Your task to perform on an android device: uninstall "Microsoft Authenticator" Image 0: 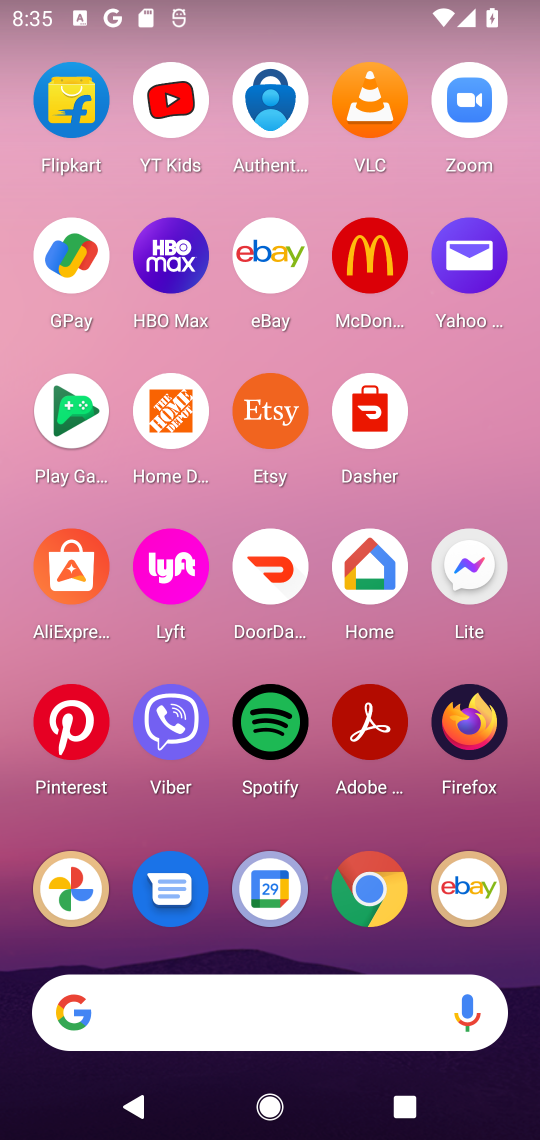
Step 0: press home button
Your task to perform on an android device: uninstall "Microsoft Authenticator" Image 1: 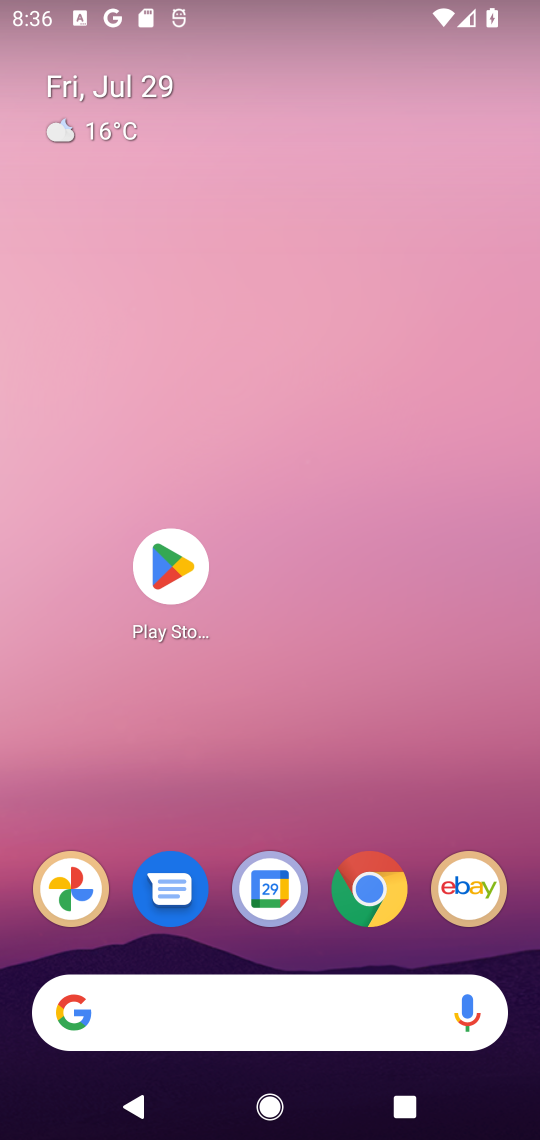
Step 1: click (172, 551)
Your task to perform on an android device: uninstall "Microsoft Authenticator" Image 2: 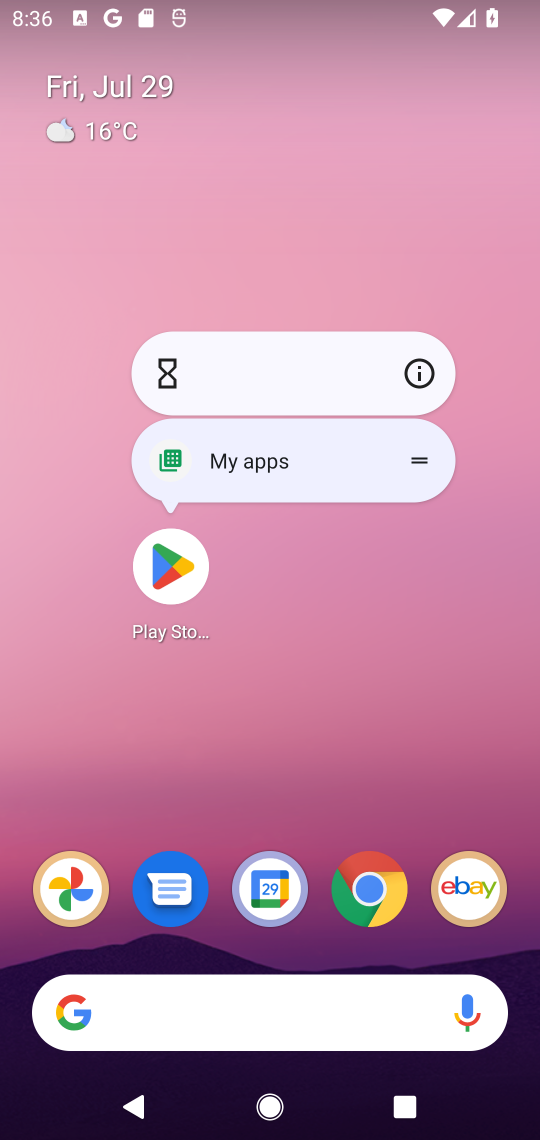
Step 2: click (163, 561)
Your task to perform on an android device: uninstall "Microsoft Authenticator" Image 3: 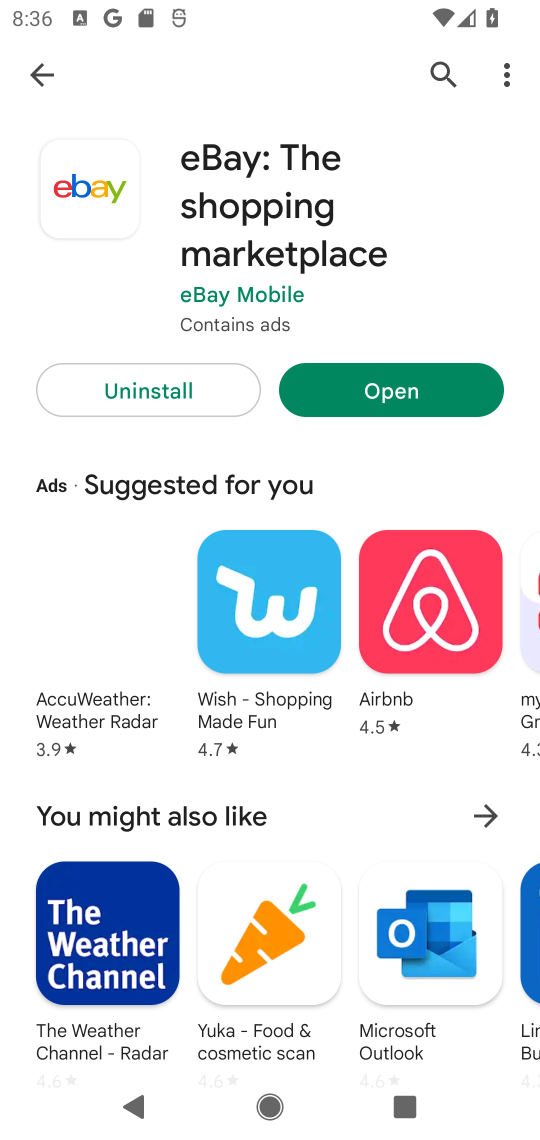
Step 3: click (440, 67)
Your task to perform on an android device: uninstall "Microsoft Authenticator" Image 4: 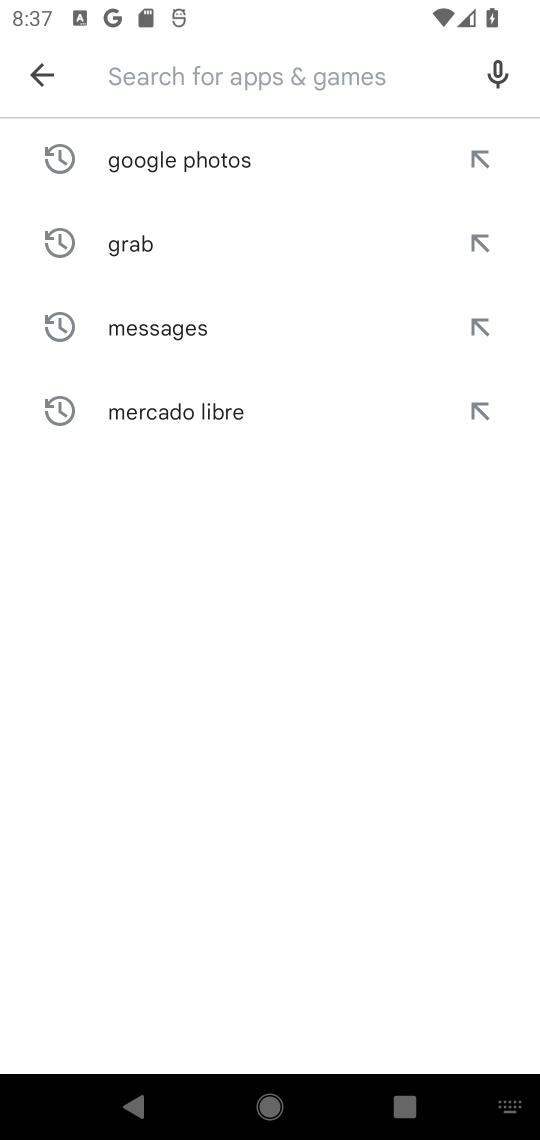
Step 4: type "Microsoft Authenticator"
Your task to perform on an android device: uninstall "Microsoft Authenticator" Image 5: 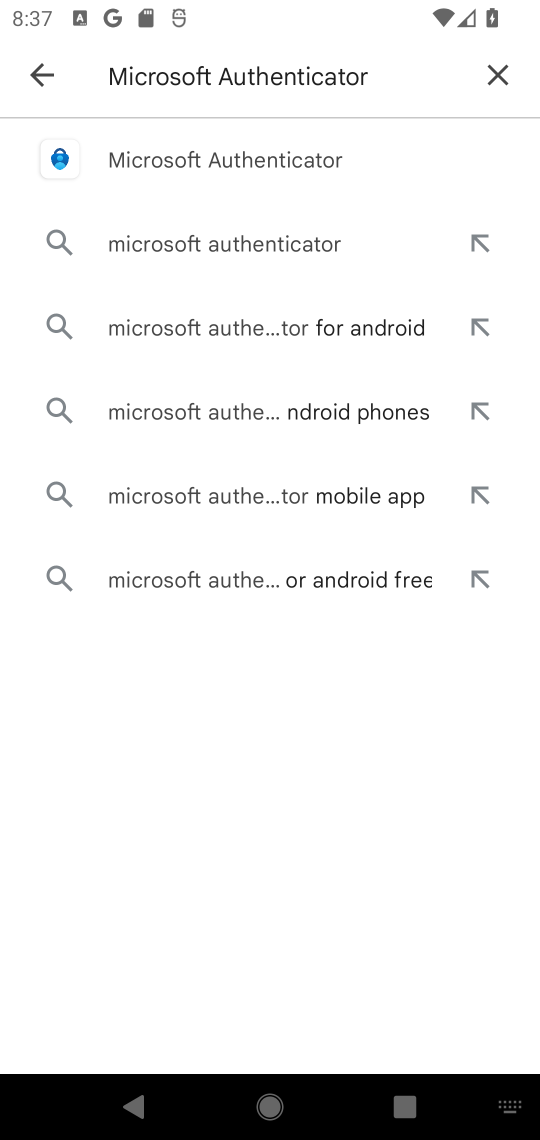
Step 5: click (187, 170)
Your task to perform on an android device: uninstall "Microsoft Authenticator" Image 6: 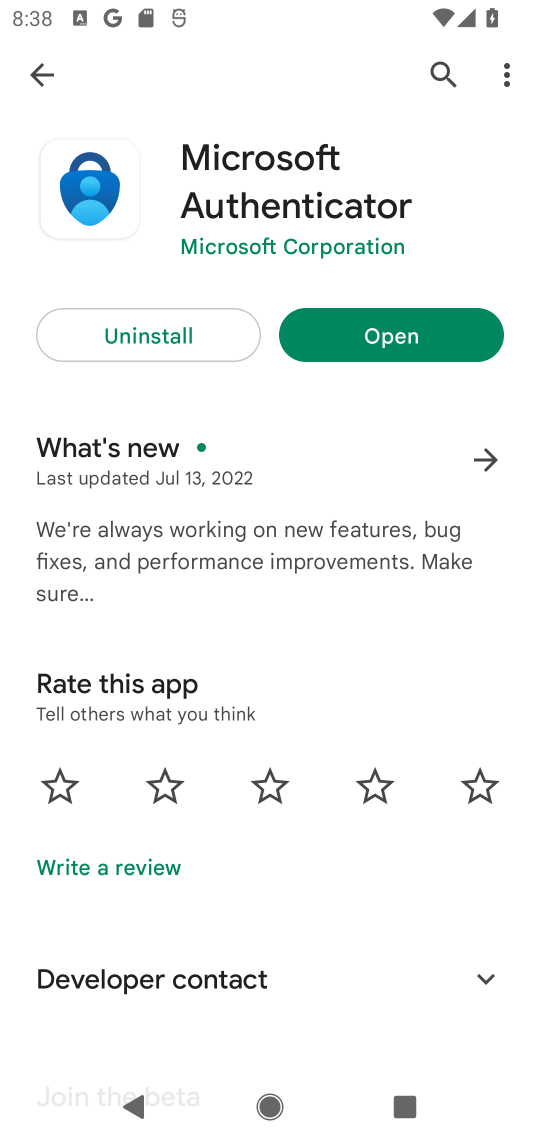
Step 6: click (152, 331)
Your task to perform on an android device: uninstall "Microsoft Authenticator" Image 7: 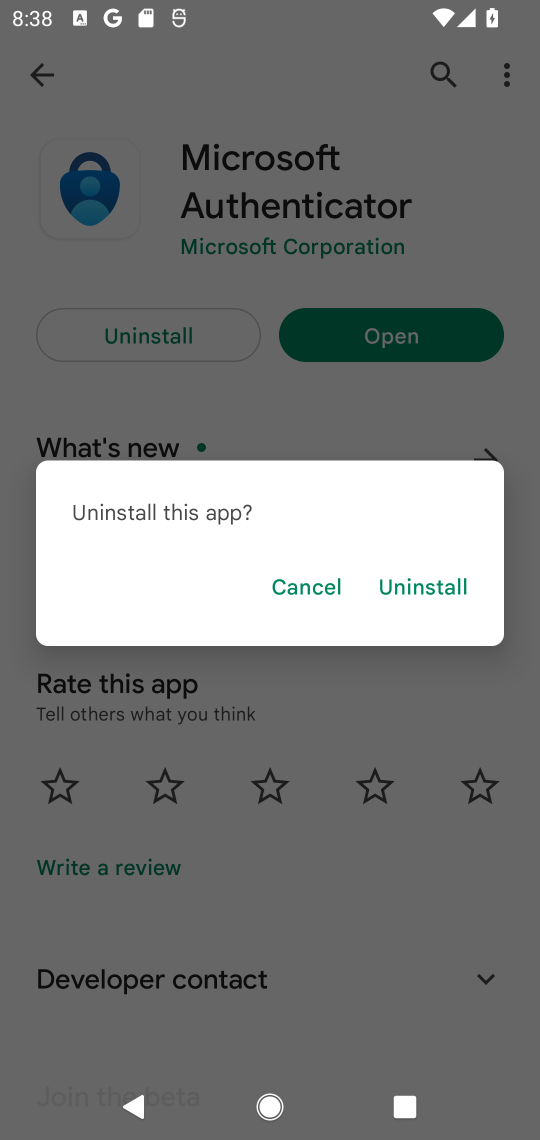
Step 7: click (409, 586)
Your task to perform on an android device: uninstall "Microsoft Authenticator" Image 8: 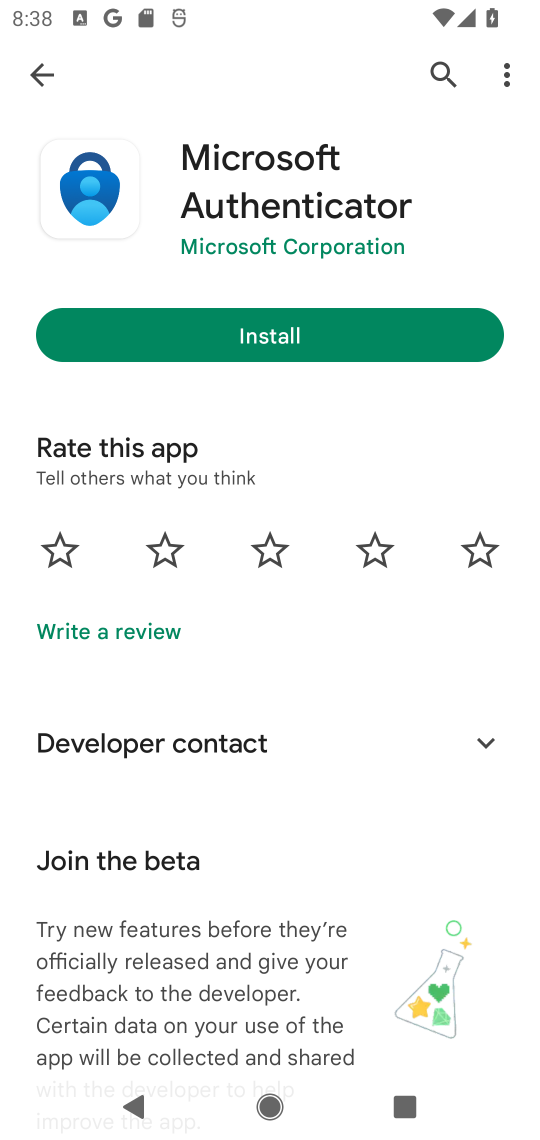
Step 8: task complete